Your task to perform on an android device: Add "logitech g910" to the cart on amazon, then select checkout. Image 0: 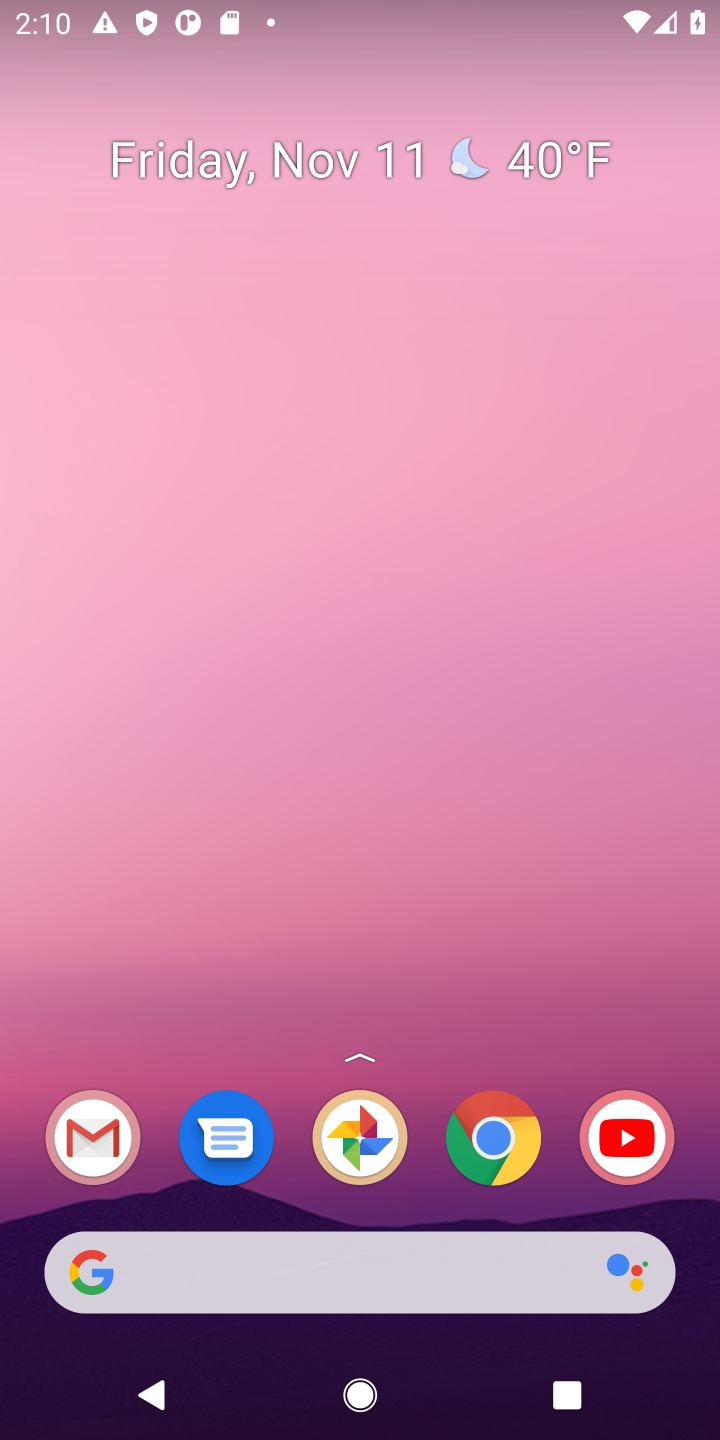
Step 0: click (500, 1142)
Your task to perform on an android device: Add "logitech g910" to the cart on amazon, then select checkout. Image 1: 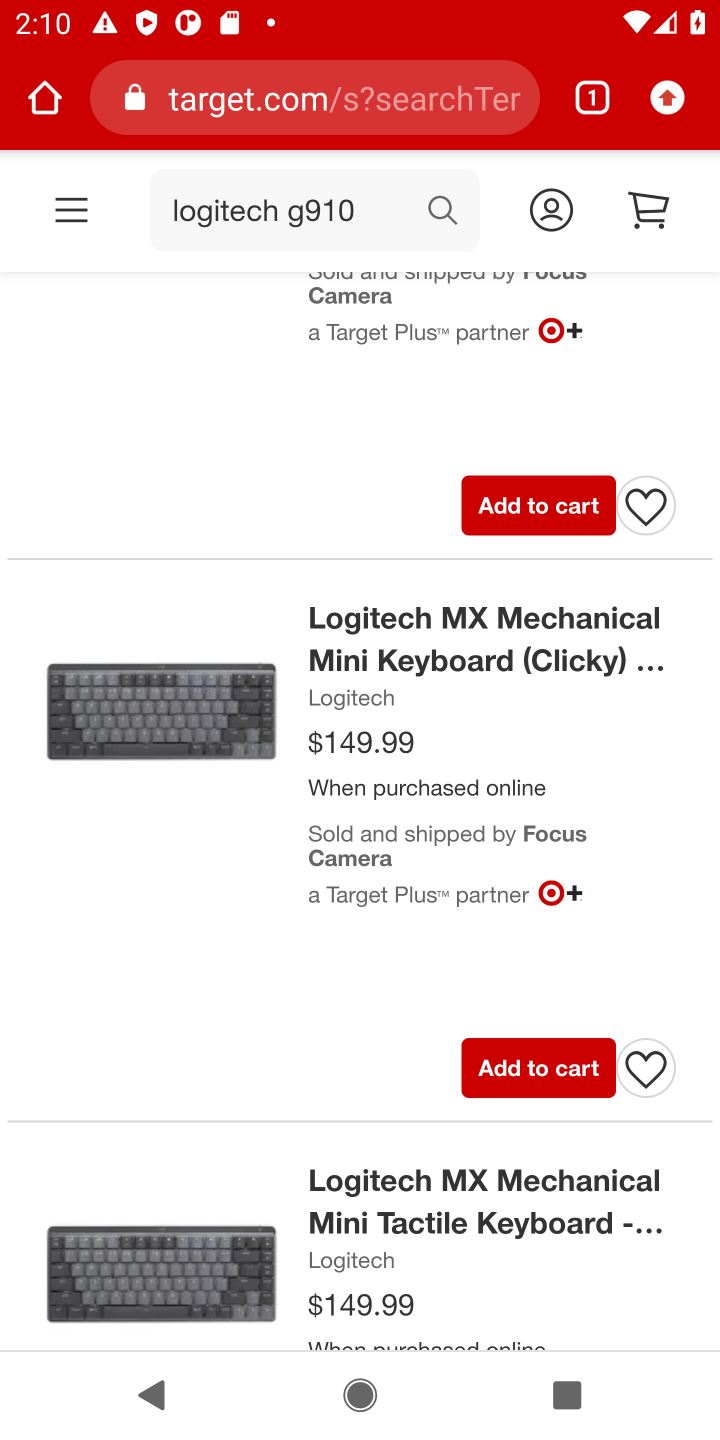
Step 1: click (445, 91)
Your task to perform on an android device: Add "logitech g910" to the cart on amazon, then select checkout. Image 2: 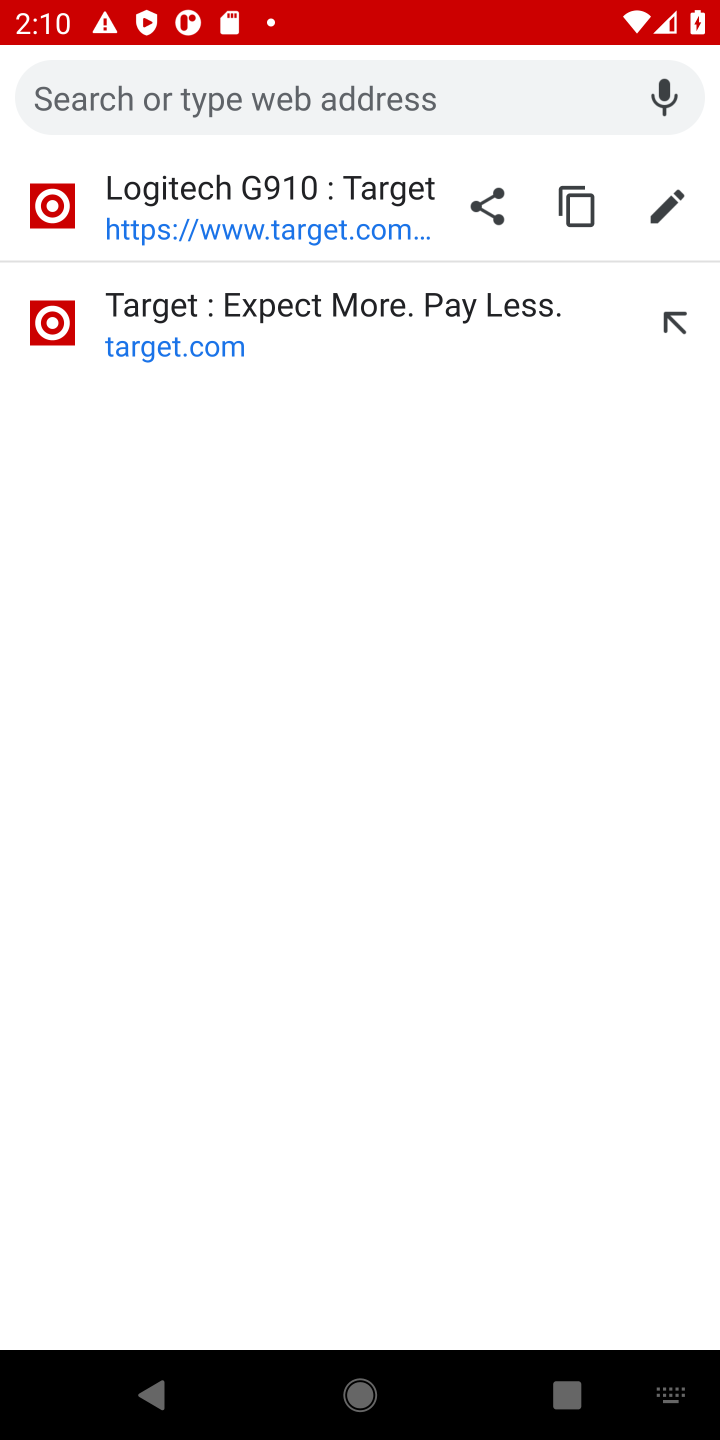
Step 2: type "amazon"
Your task to perform on an android device: Add "logitech g910" to the cart on amazon, then select checkout. Image 3: 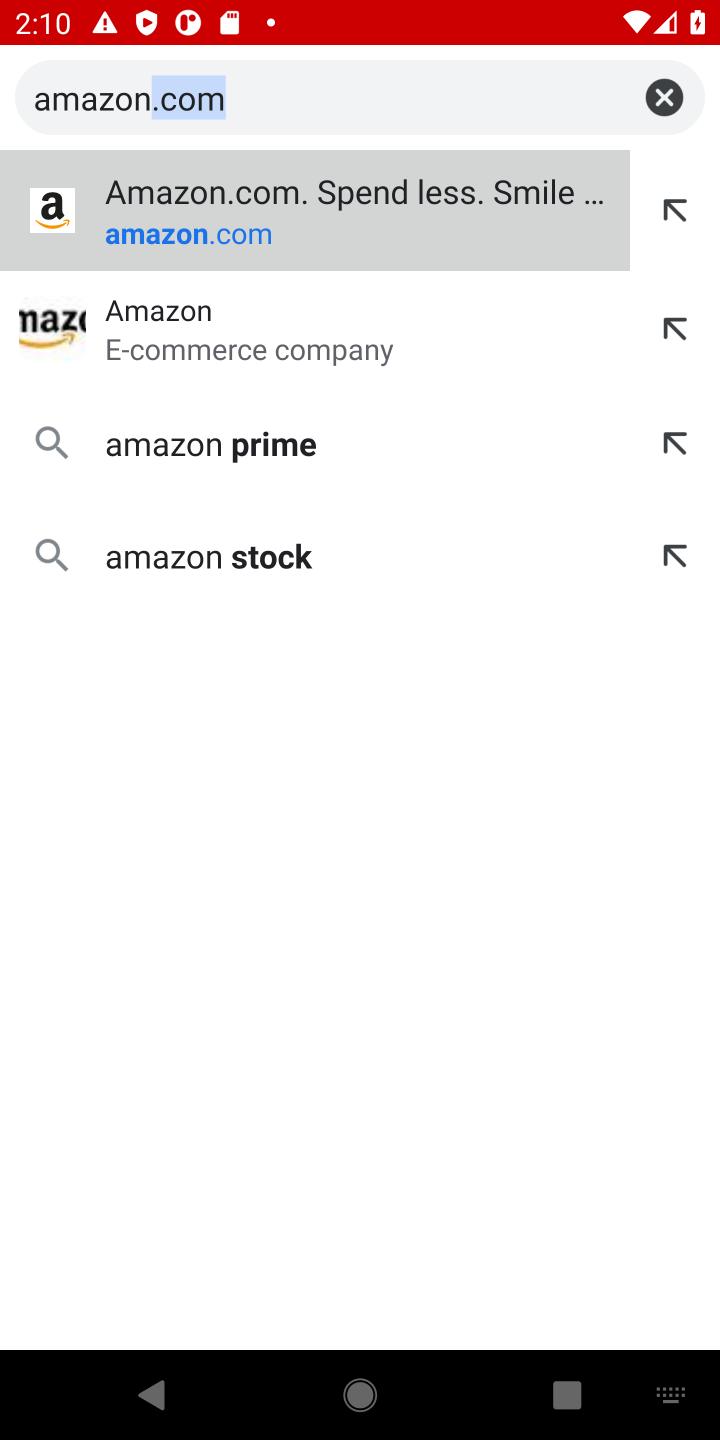
Step 3: press enter
Your task to perform on an android device: Add "logitech g910" to the cart on amazon, then select checkout. Image 4: 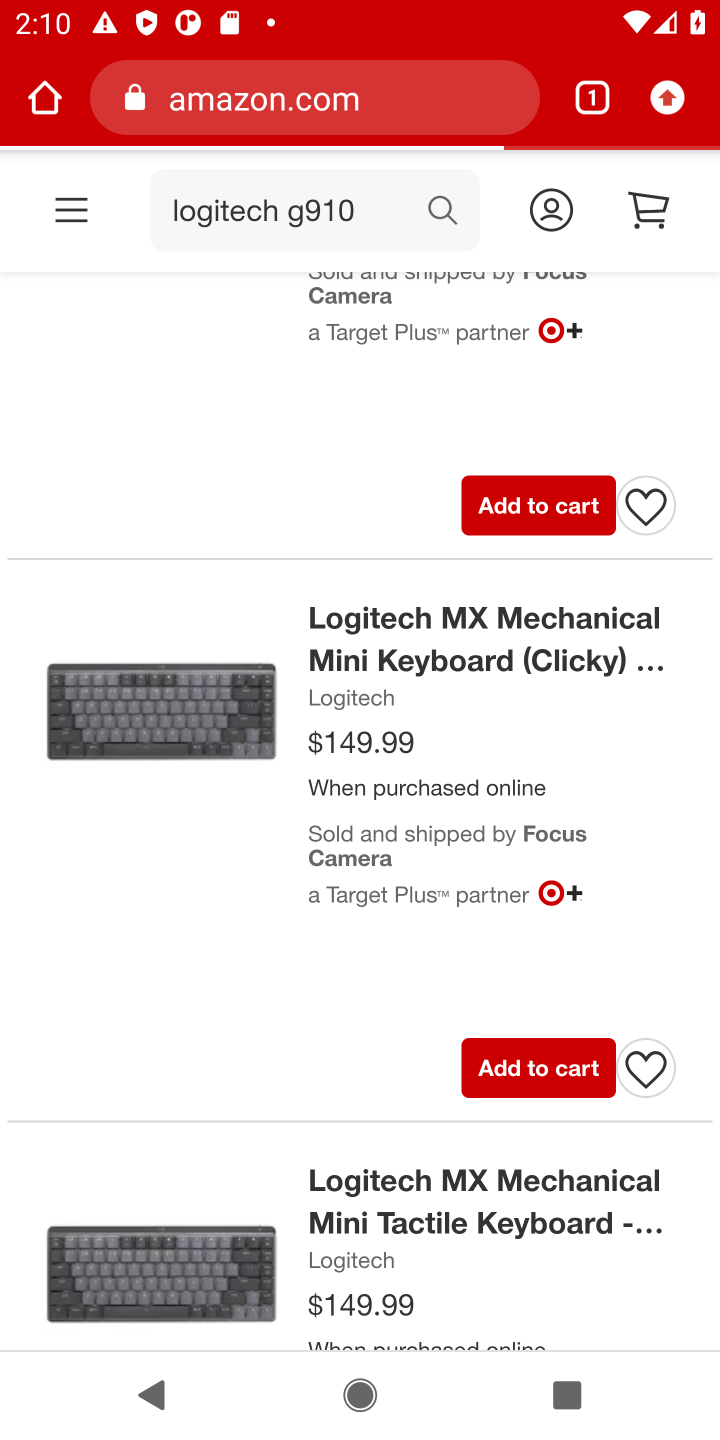
Step 4: click (338, 88)
Your task to perform on an android device: Add "logitech g910" to the cart on amazon, then select checkout. Image 5: 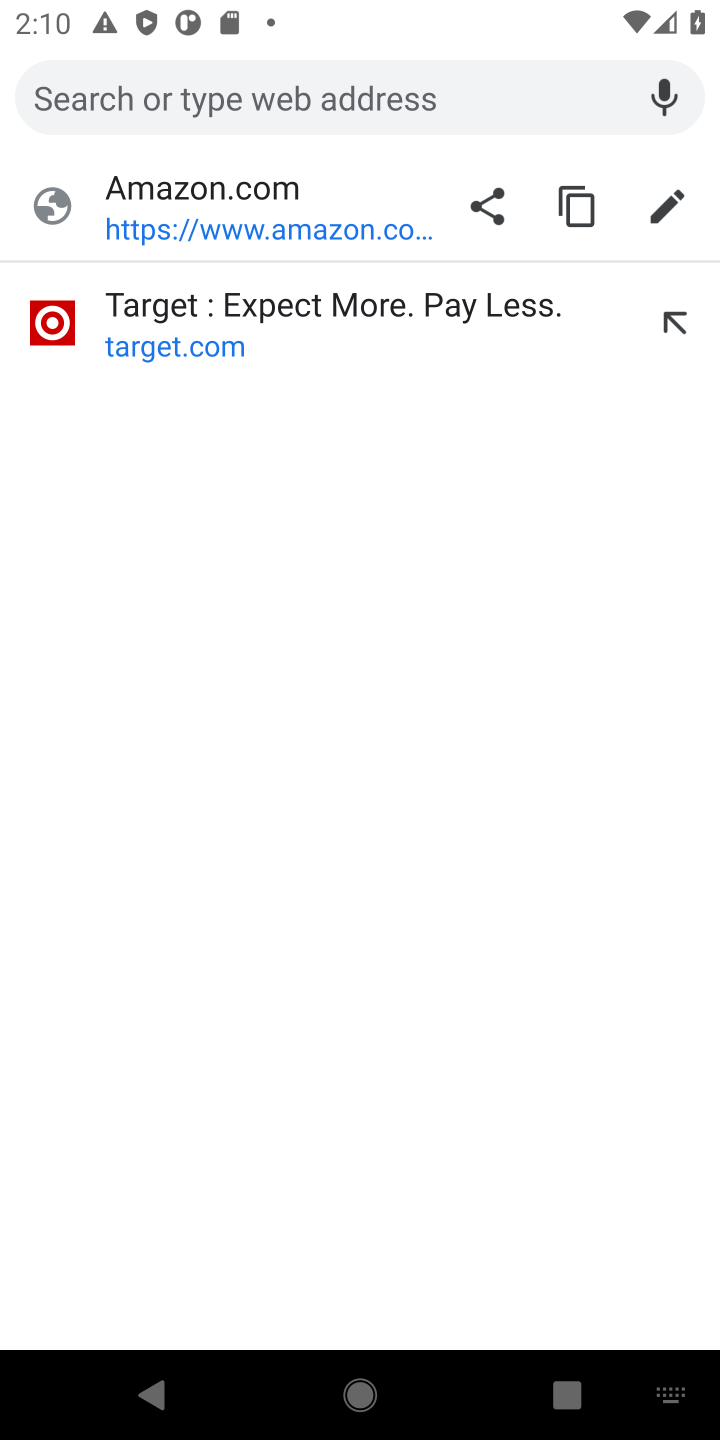
Step 5: click (304, 181)
Your task to perform on an android device: Add "logitech g910" to the cart on amazon, then select checkout. Image 6: 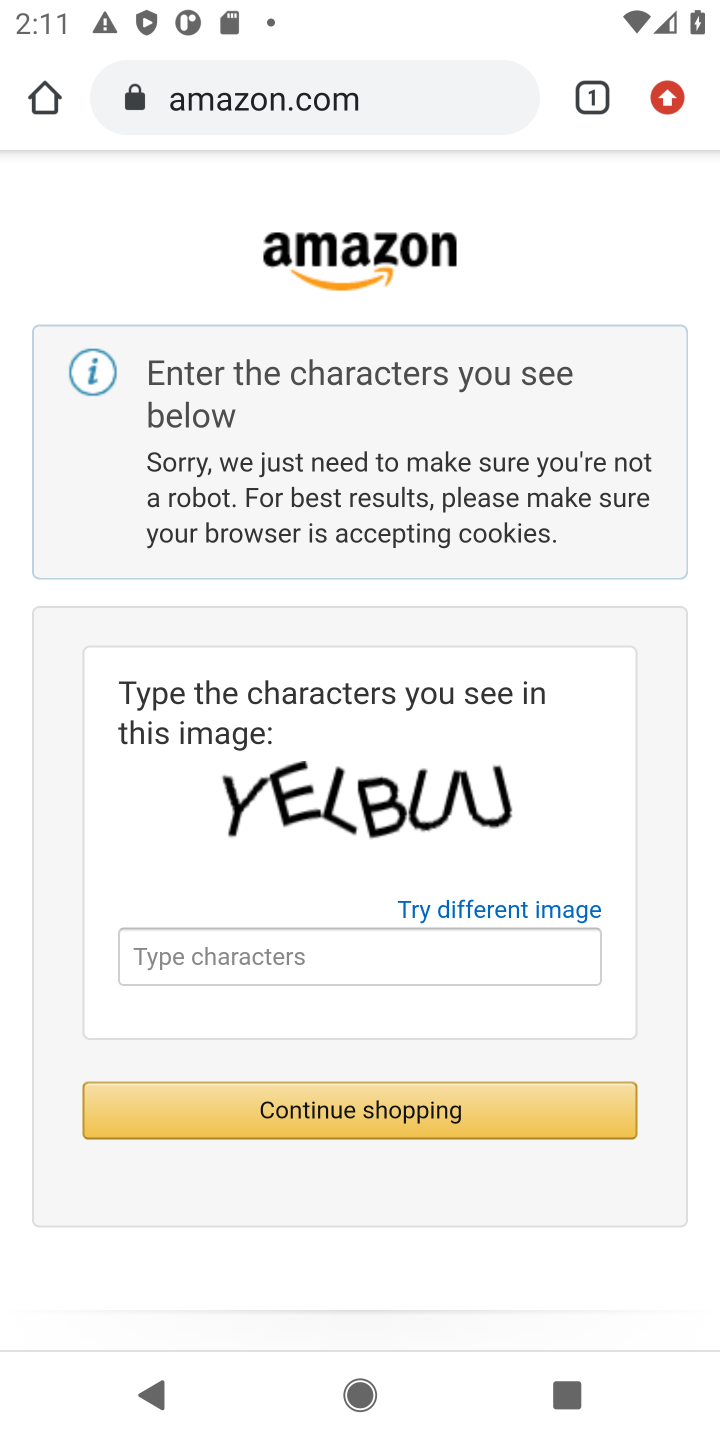
Step 6: press back button
Your task to perform on an android device: Add "logitech g910" to the cart on amazon, then select checkout. Image 7: 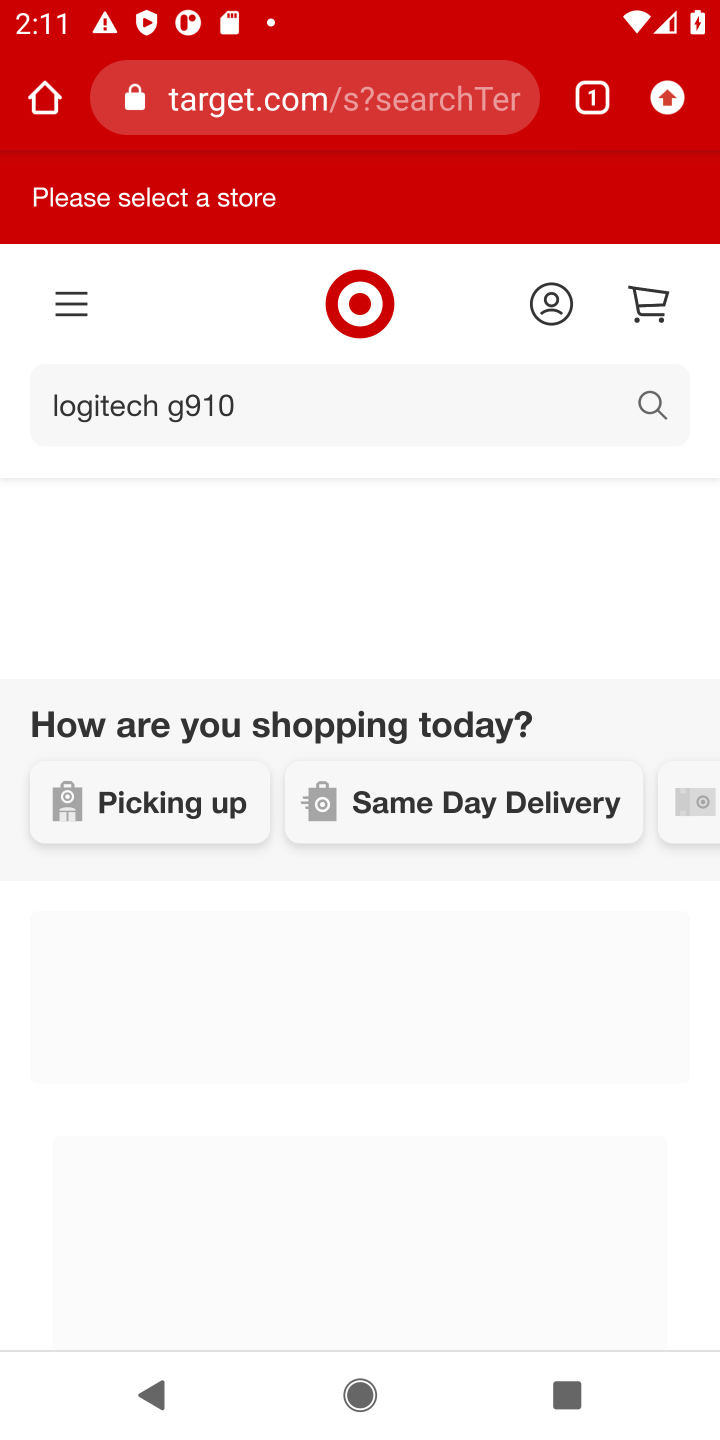
Step 7: click (55, 101)
Your task to perform on an android device: Add "logitech g910" to the cart on amazon, then select checkout. Image 8: 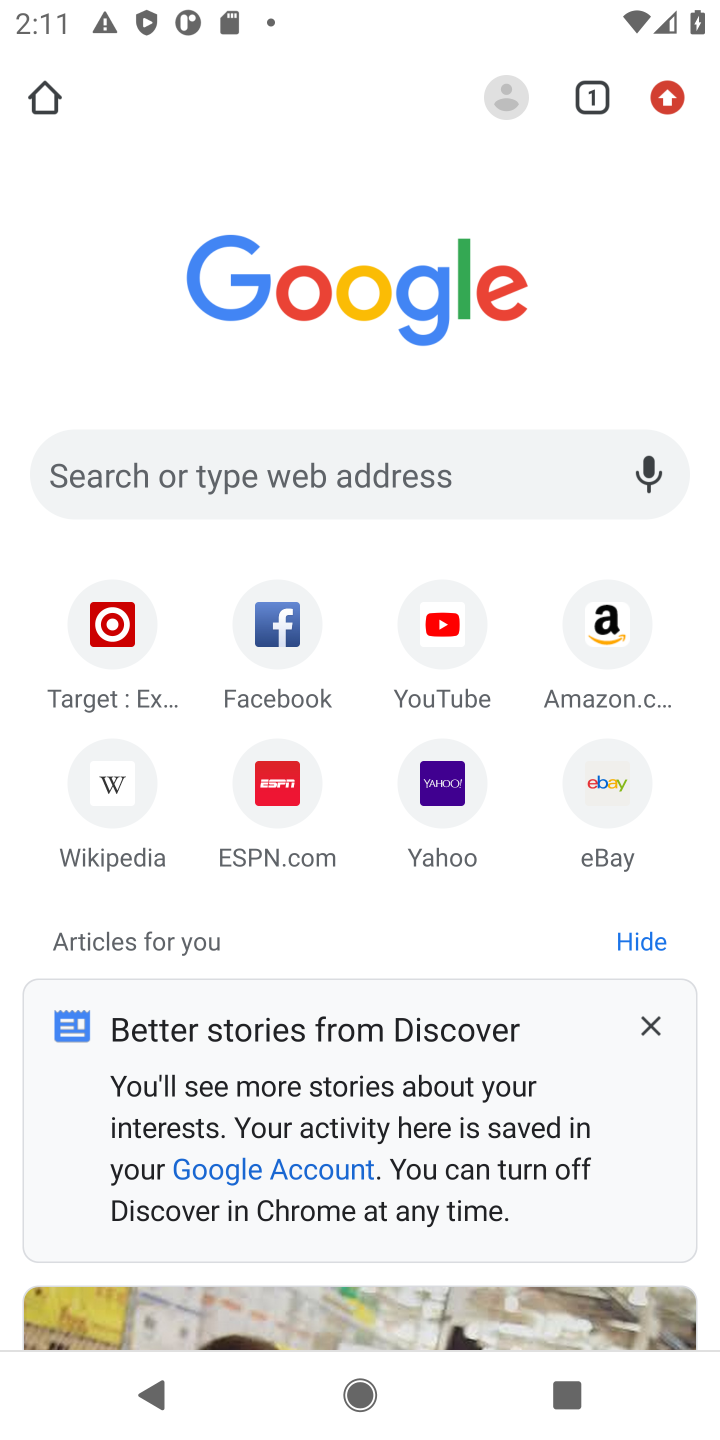
Step 8: click (607, 615)
Your task to perform on an android device: Add "logitech g910" to the cart on amazon, then select checkout. Image 9: 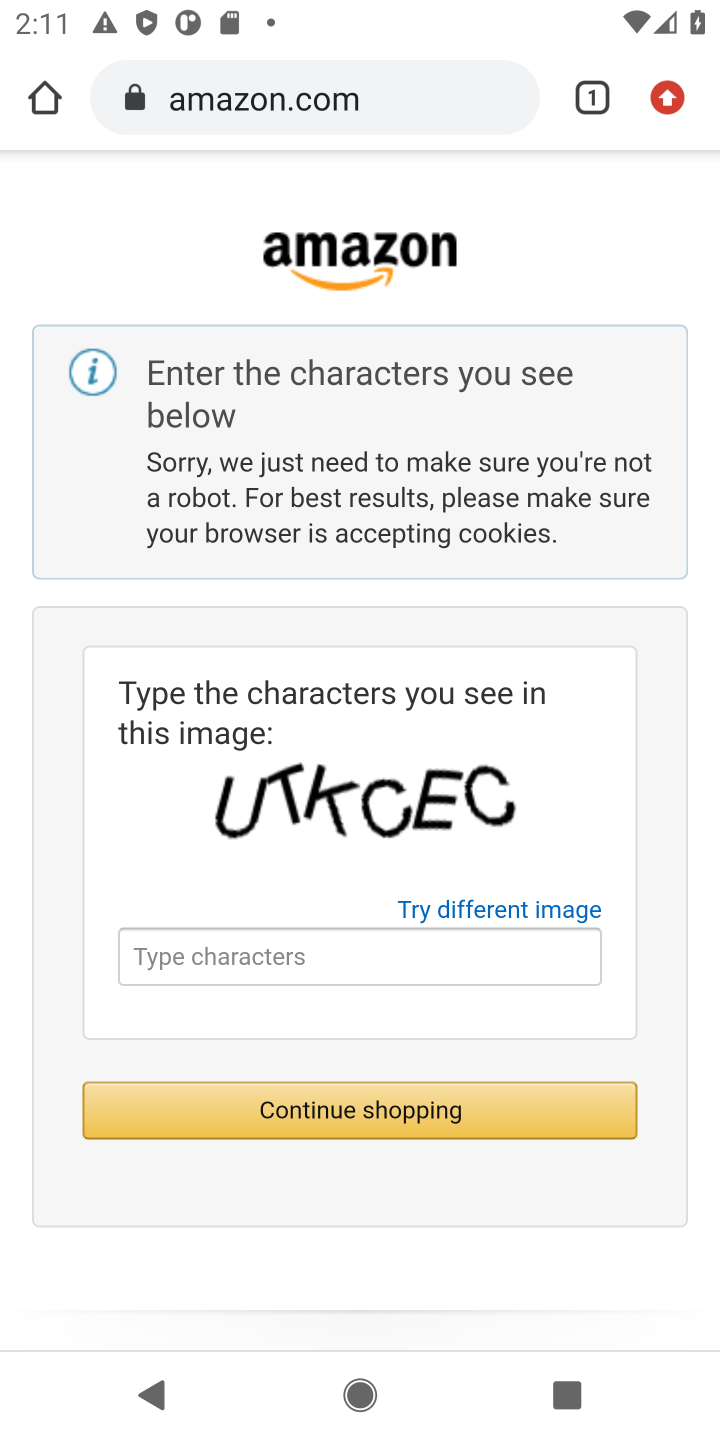
Step 9: click (445, 104)
Your task to perform on an android device: Add "logitech g910" to the cart on amazon, then select checkout. Image 10: 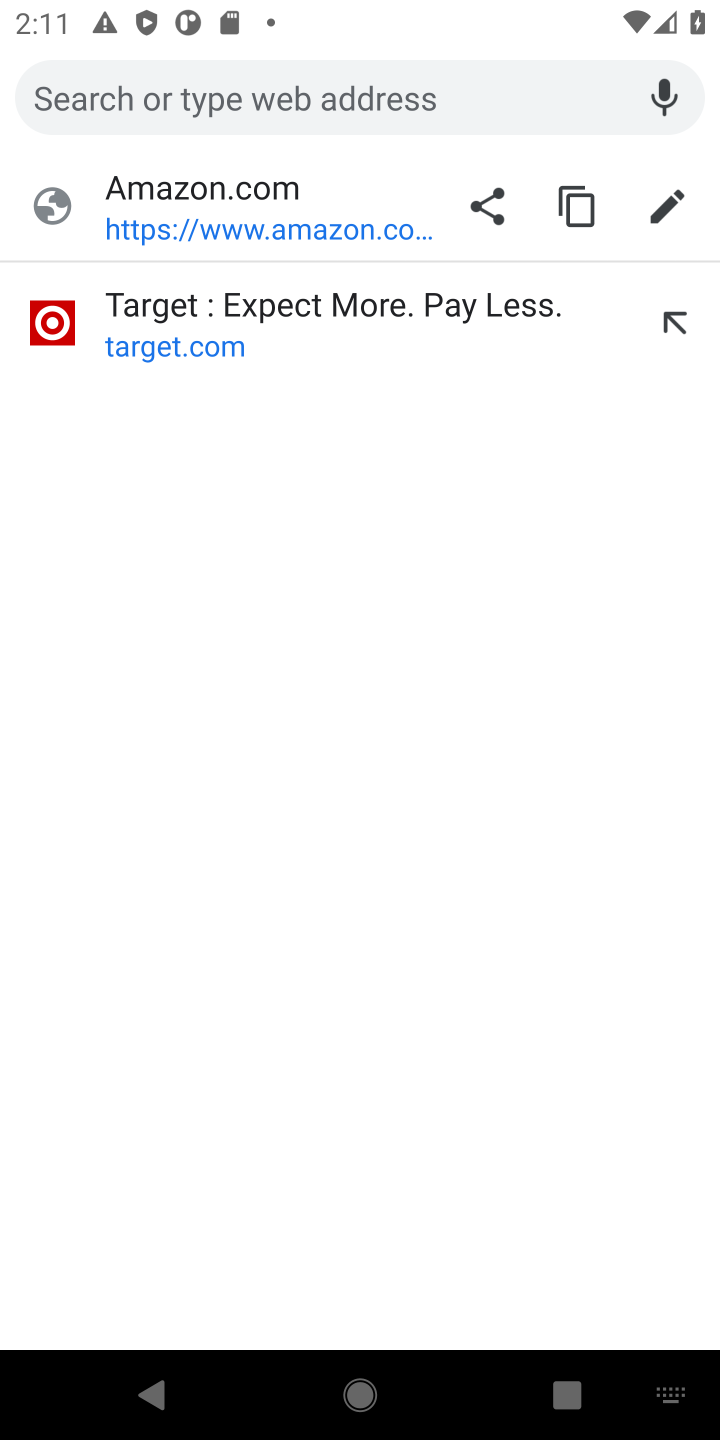
Step 10: click (356, 229)
Your task to perform on an android device: Add "logitech g910" to the cart on amazon, then select checkout. Image 11: 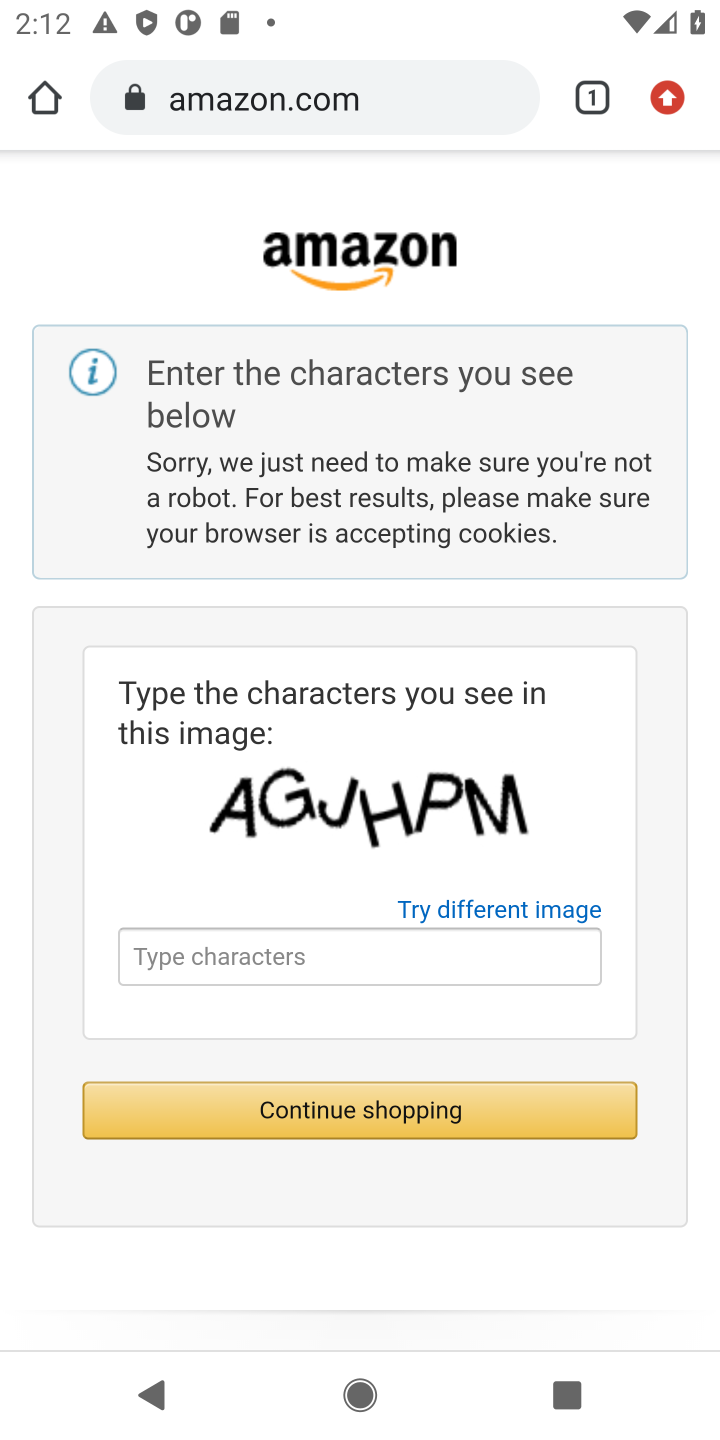
Step 11: task complete